Your task to perform on an android device: turn on airplane mode Image 0: 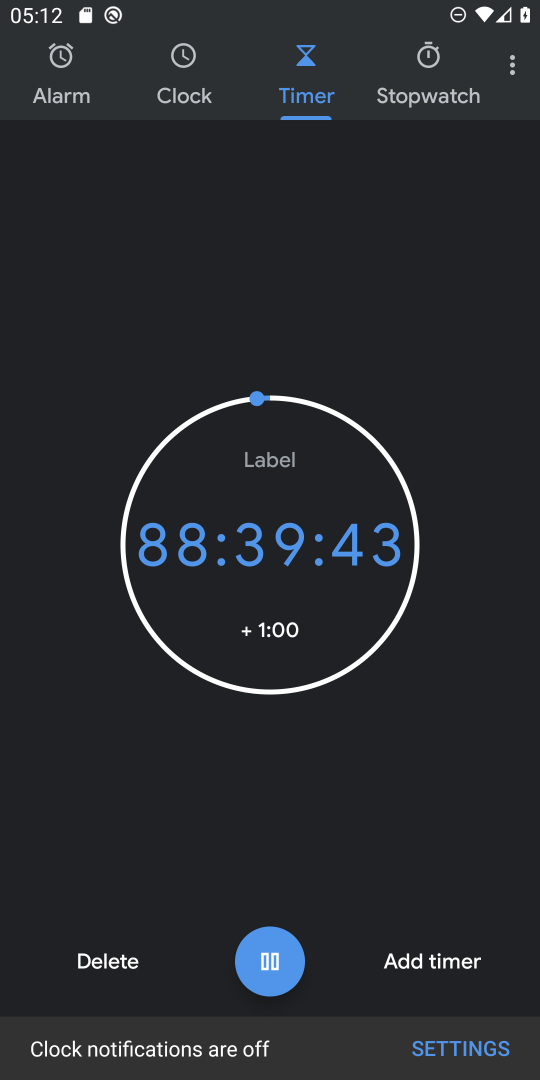
Step 0: press home button
Your task to perform on an android device: turn on airplane mode Image 1: 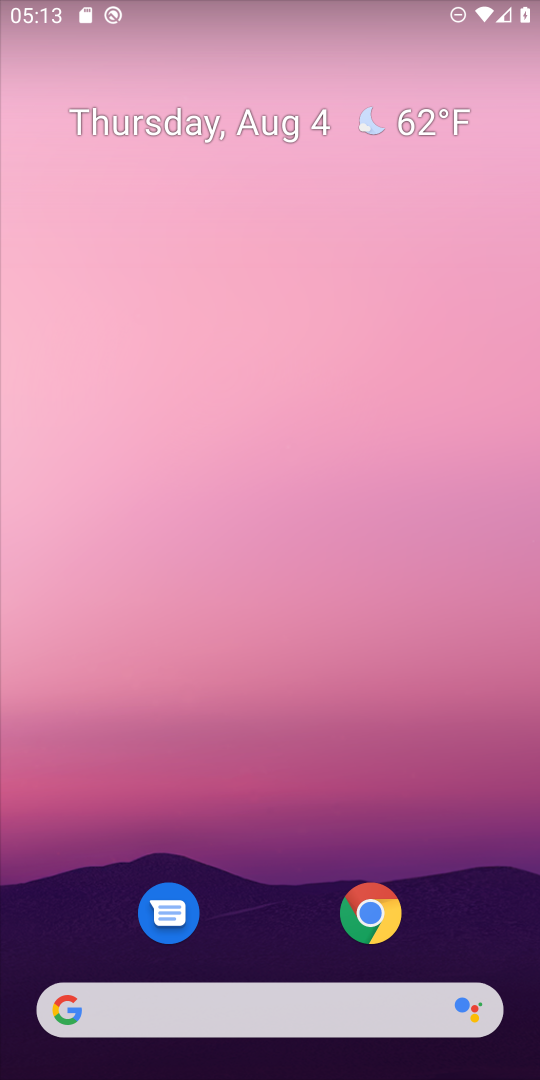
Step 1: drag from (299, 975) to (243, 63)
Your task to perform on an android device: turn on airplane mode Image 2: 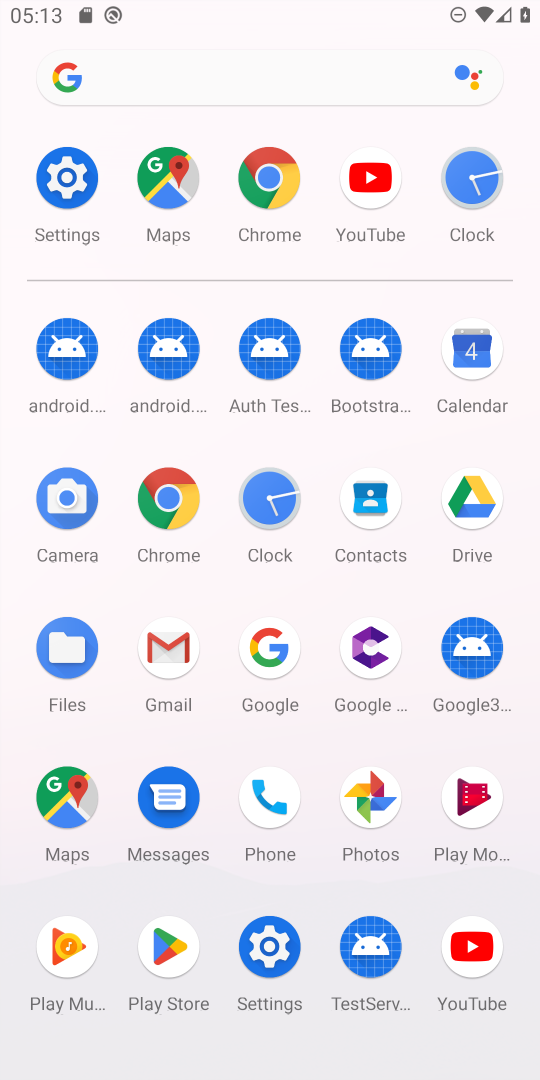
Step 2: click (273, 924)
Your task to perform on an android device: turn on airplane mode Image 3: 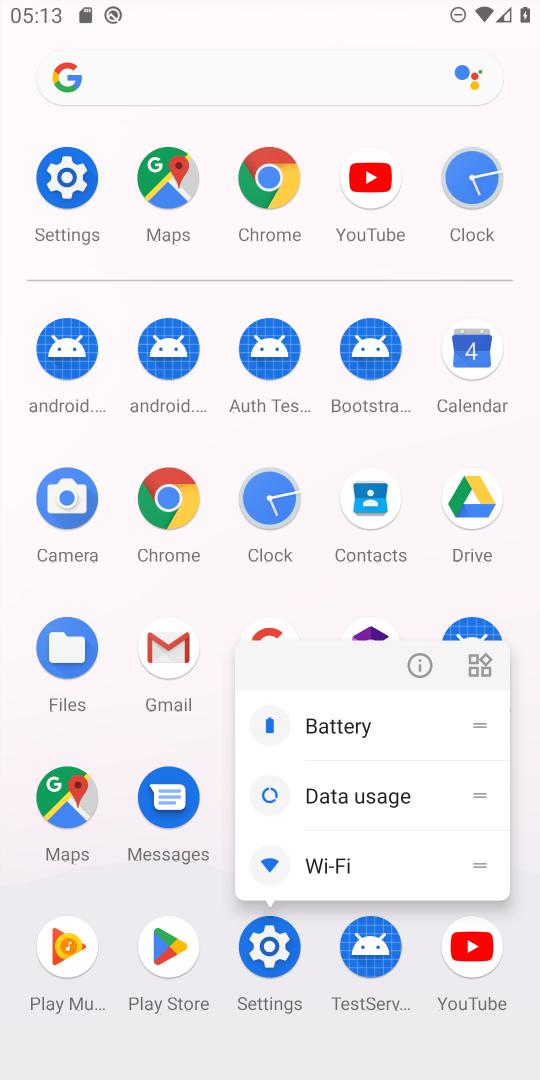
Step 3: click (244, 953)
Your task to perform on an android device: turn on airplane mode Image 4: 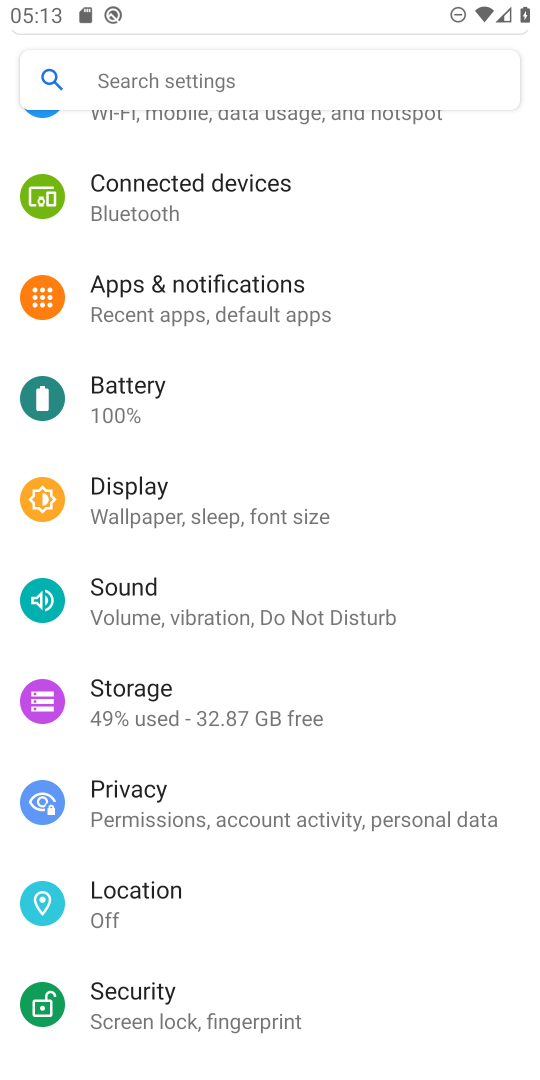
Step 4: drag from (161, 147) to (164, 758)
Your task to perform on an android device: turn on airplane mode Image 5: 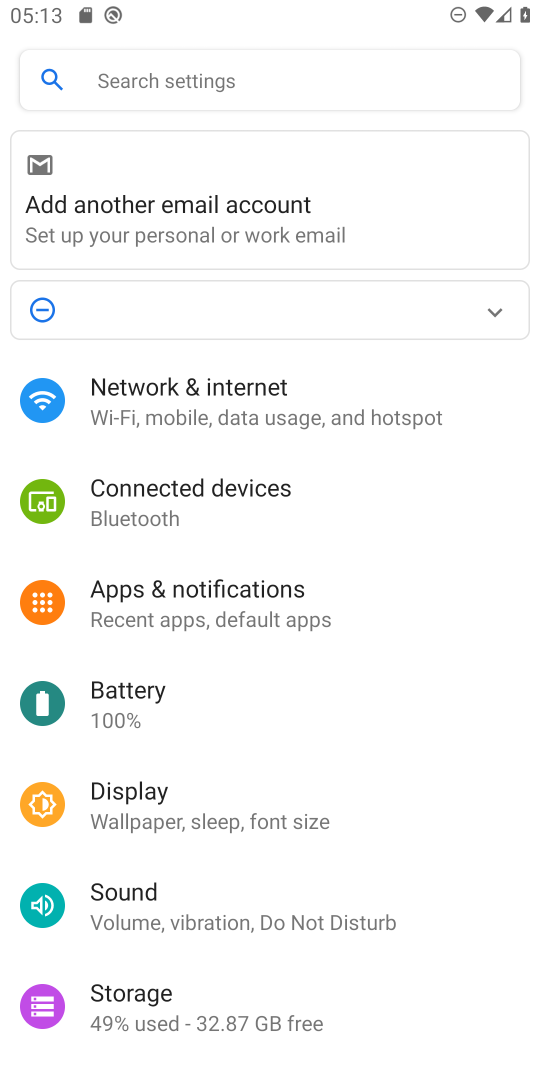
Step 5: click (202, 396)
Your task to perform on an android device: turn on airplane mode Image 6: 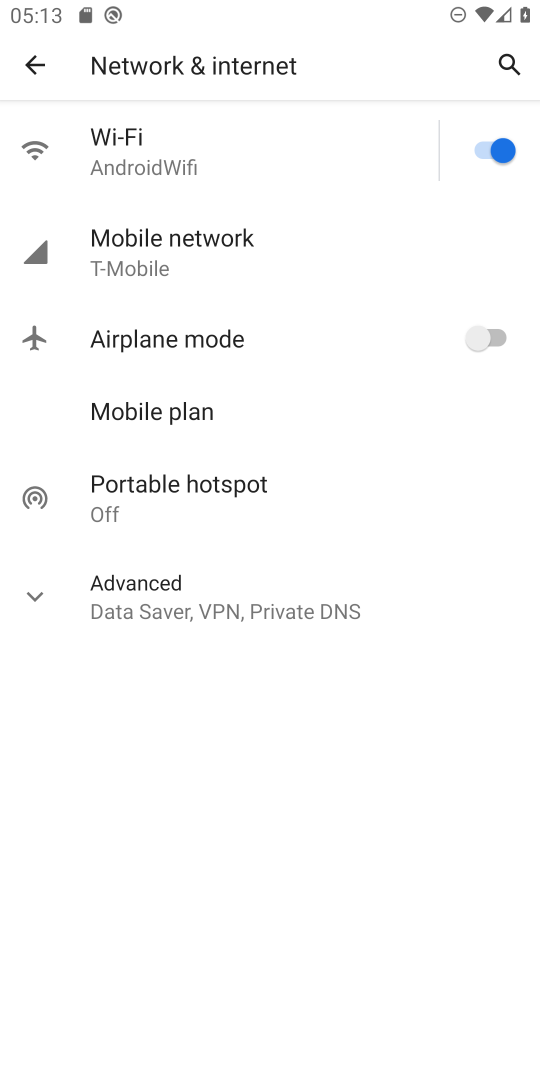
Step 6: click (499, 330)
Your task to perform on an android device: turn on airplane mode Image 7: 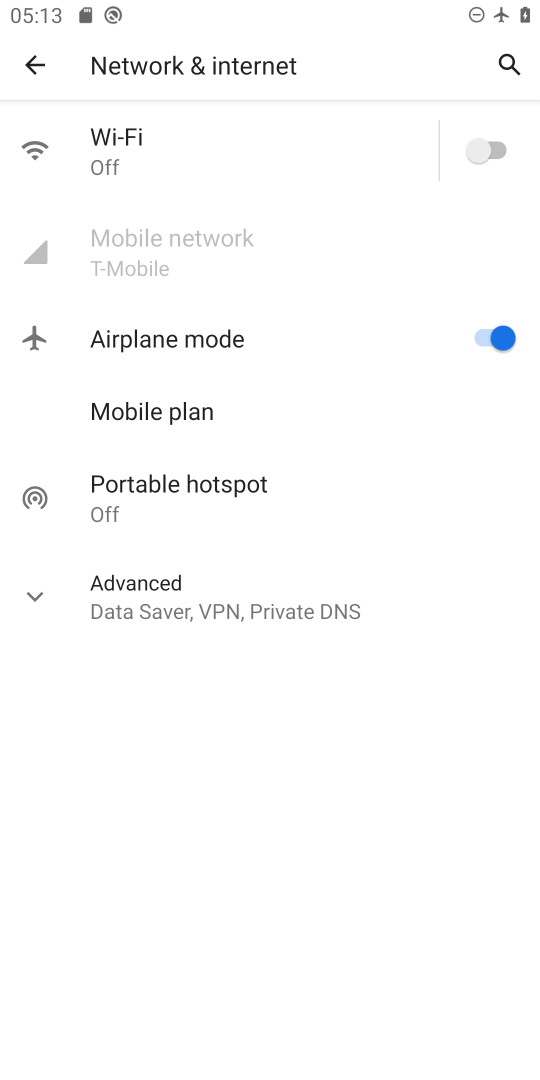
Step 7: task complete